Your task to perform on an android device: Search for Mexican restaurants on Maps Image 0: 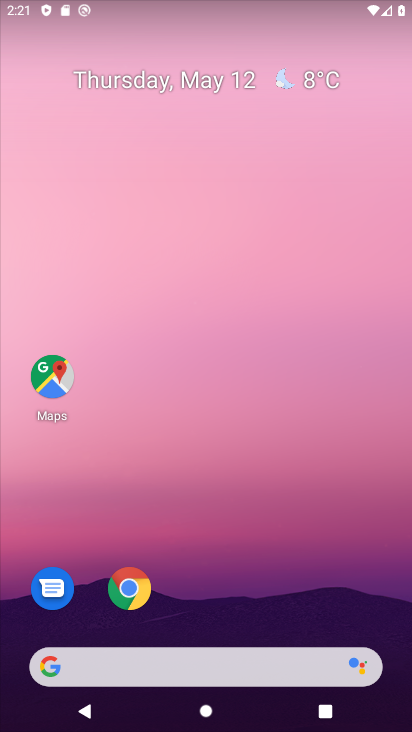
Step 0: drag from (192, 614) to (162, 46)
Your task to perform on an android device: Search for Mexican restaurants on Maps Image 1: 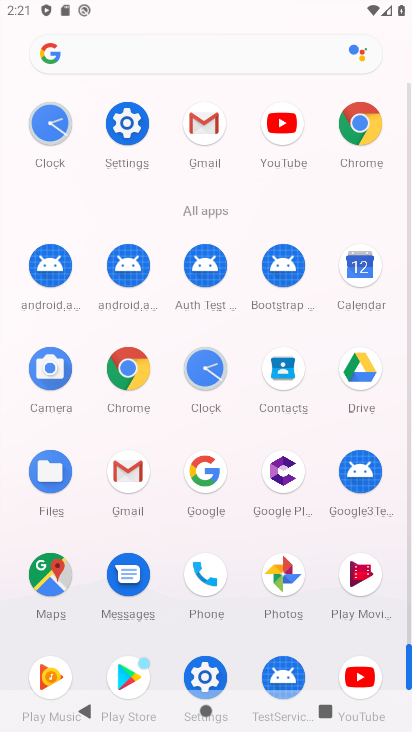
Step 1: drag from (15, 571) to (7, 238)
Your task to perform on an android device: Search for Mexican restaurants on Maps Image 2: 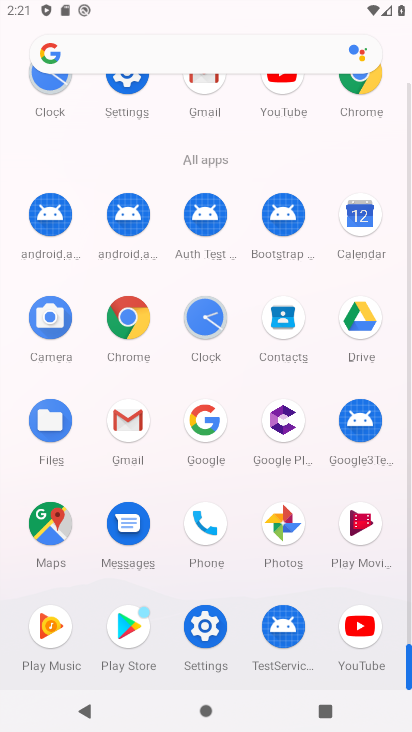
Step 2: click (52, 522)
Your task to perform on an android device: Search for Mexican restaurants on Maps Image 3: 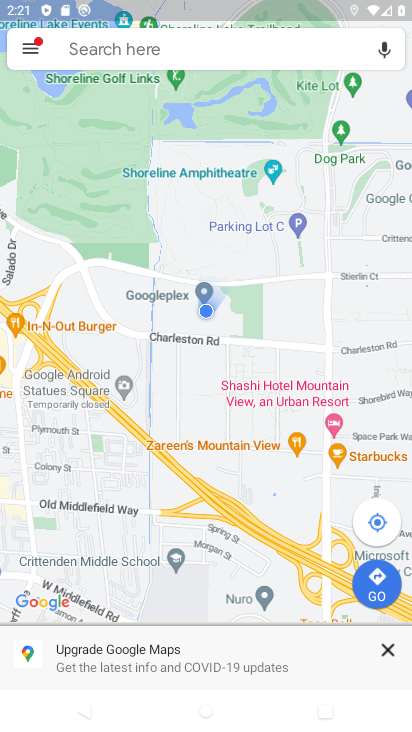
Step 3: click (220, 48)
Your task to perform on an android device: Search for Mexican restaurants on Maps Image 4: 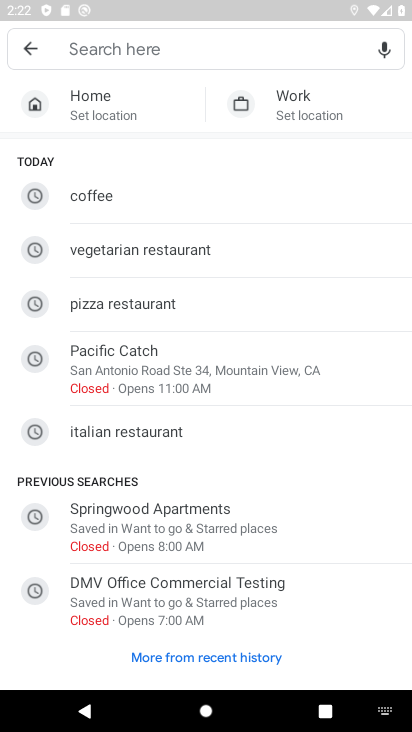
Step 4: type "Mexican restaurants"
Your task to perform on an android device: Search for Mexican restaurants on Maps Image 5: 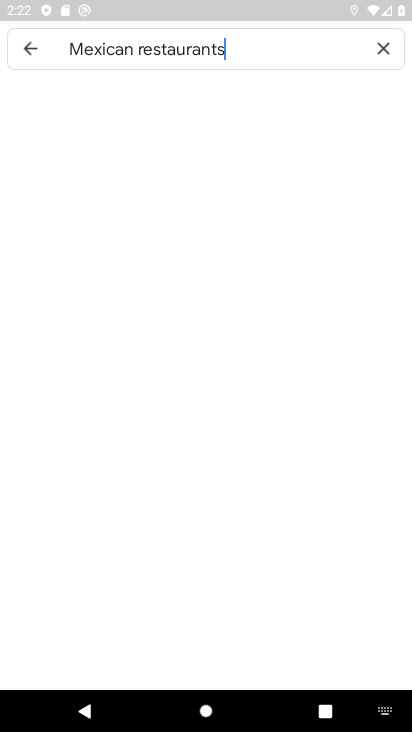
Step 5: type ""
Your task to perform on an android device: Search for Mexican restaurants on Maps Image 6: 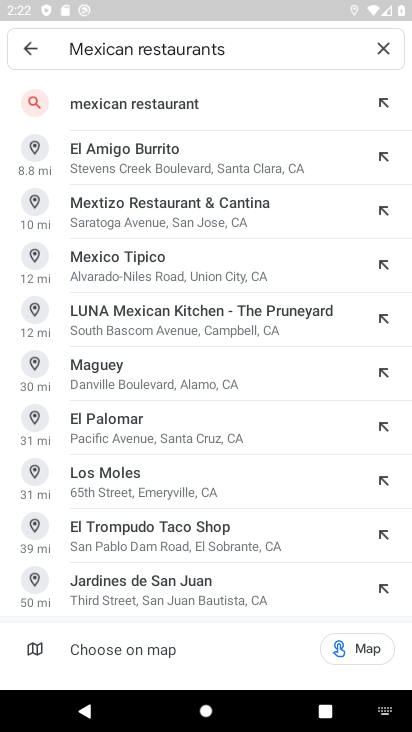
Step 6: click (166, 97)
Your task to perform on an android device: Search for Mexican restaurants on Maps Image 7: 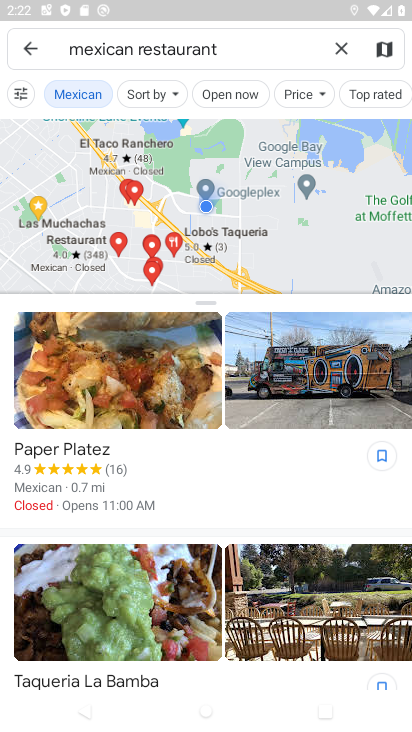
Step 7: task complete